Your task to perform on an android device: turn on the 12-hour format for clock Image 0: 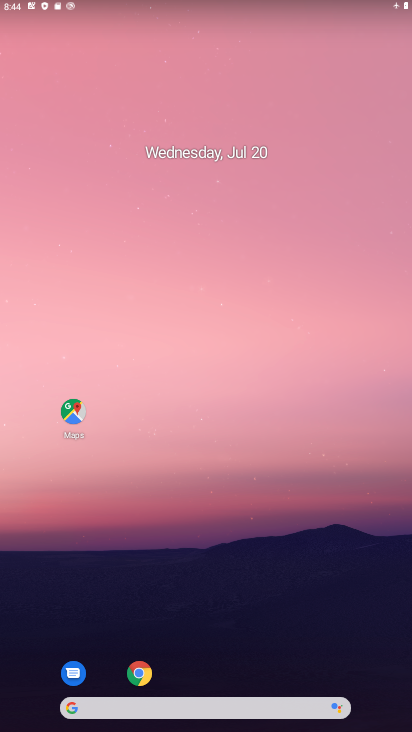
Step 0: drag from (219, 727) to (184, 237)
Your task to perform on an android device: turn on the 12-hour format for clock Image 1: 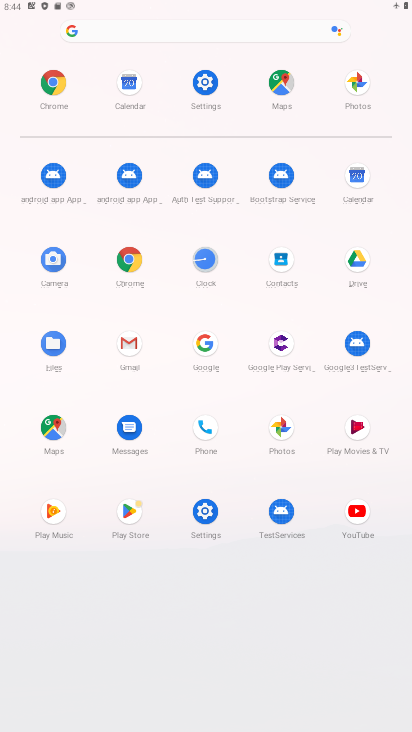
Step 1: click (204, 260)
Your task to perform on an android device: turn on the 12-hour format for clock Image 2: 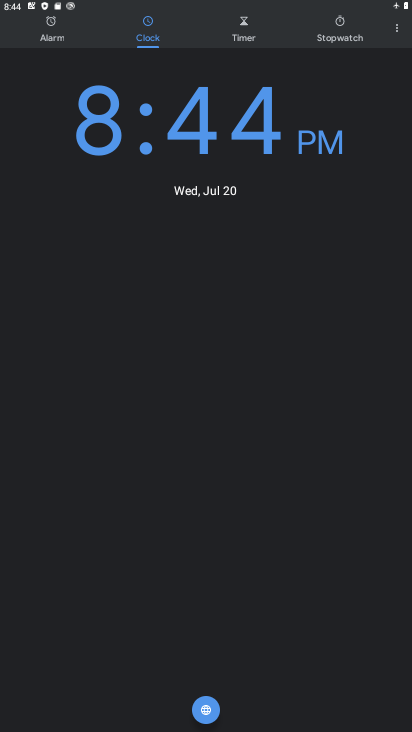
Step 2: click (396, 32)
Your task to perform on an android device: turn on the 12-hour format for clock Image 3: 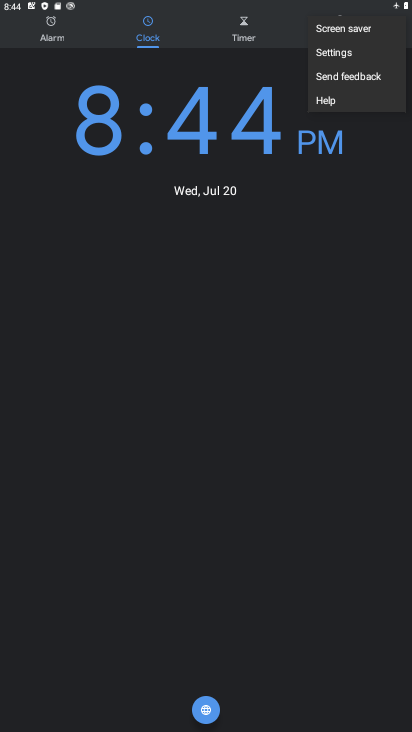
Step 3: click (337, 53)
Your task to perform on an android device: turn on the 12-hour format for clock Image 4: 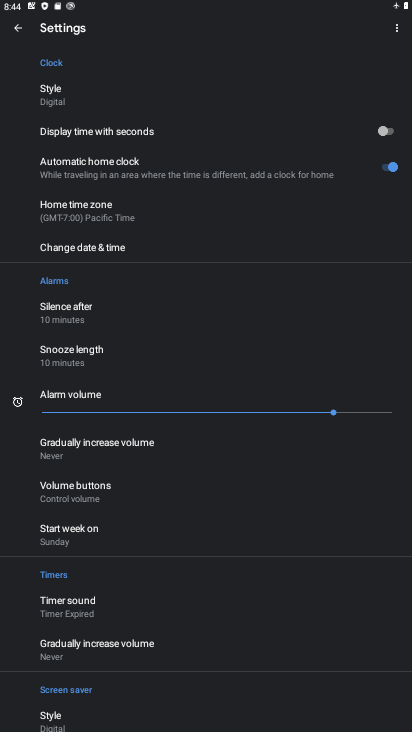
Step 4: click (72, 249)
Your task to perform on an android device: turn on the 12-hour format for clock Image 5: 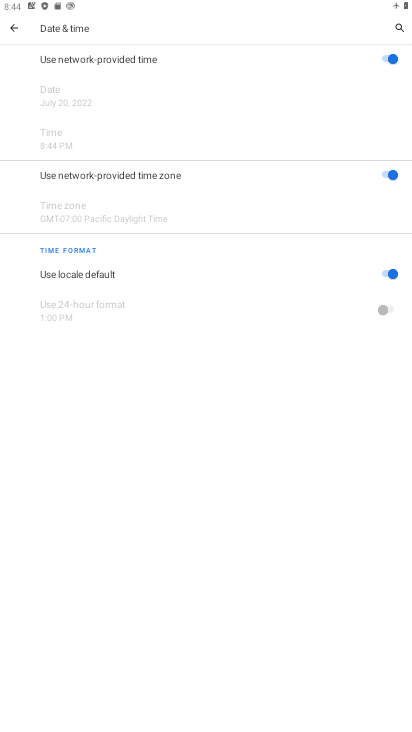
Step 5: task complete